Your task to perform on an android device: move a message to another label in the gmail app Image 0: 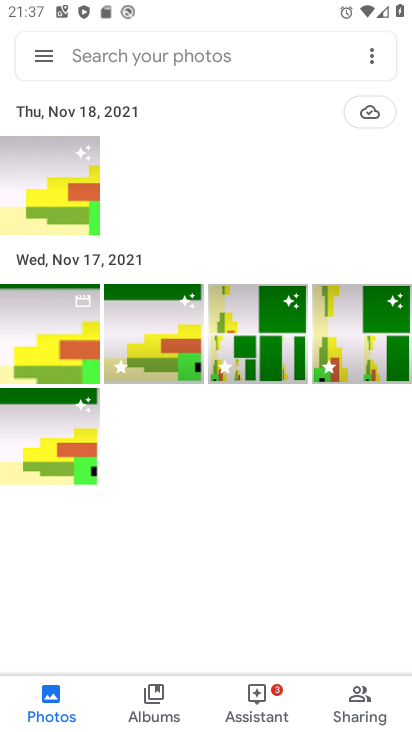
Step 0: press home button
Your task to perform on an android device: move a message to another label in the gmail app Image 1: 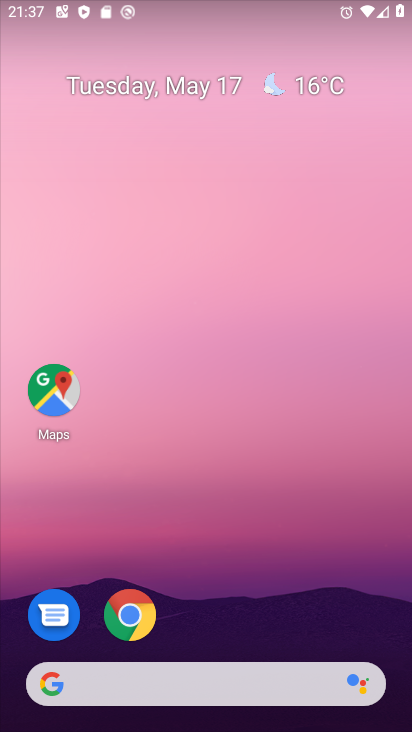
Step 1: drag from (290, 559) to (274, 33)
Your task to perform on an android device: move a message to another label in the gmail app Image 2: 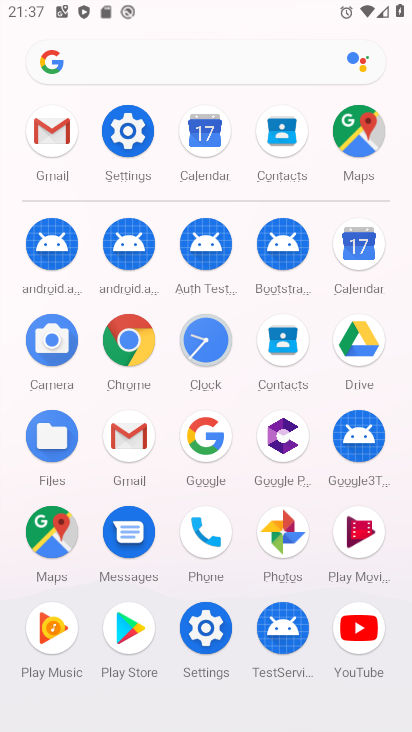
Step 2: click (128, 427)
Your task to perform on an android device: move a message to another label in the gmail app Image 3: 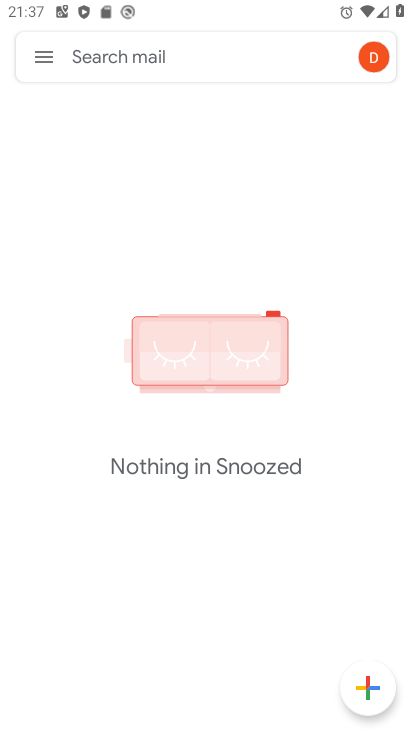
Step 3: click (47, 54)
Your task to perform on an android device: move a message to another label in the gmail app Image 4: 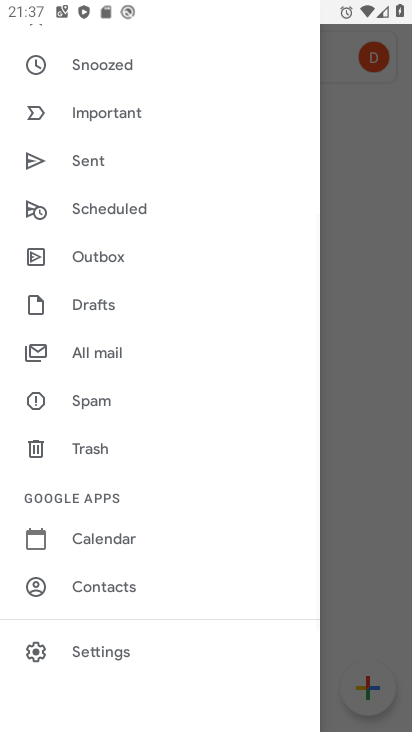
Step 4: click (92, 348)
Your task to perform on an android device: move a message to another label in the gmail app Image 5: 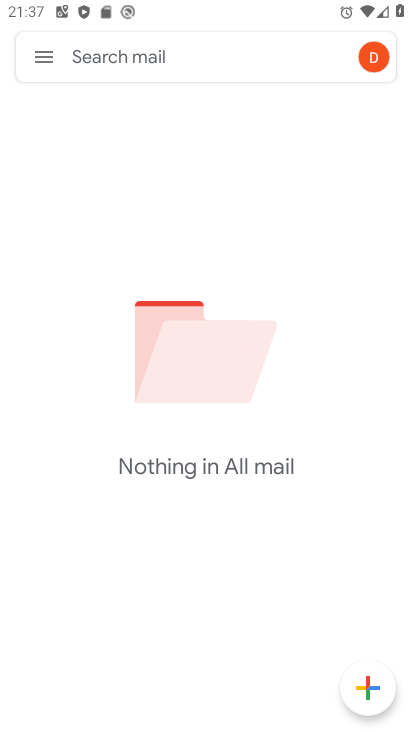
Step 5: task complete